Your task to perform on an android device: open app "LiveIn - Share Your Moment" Image 0: 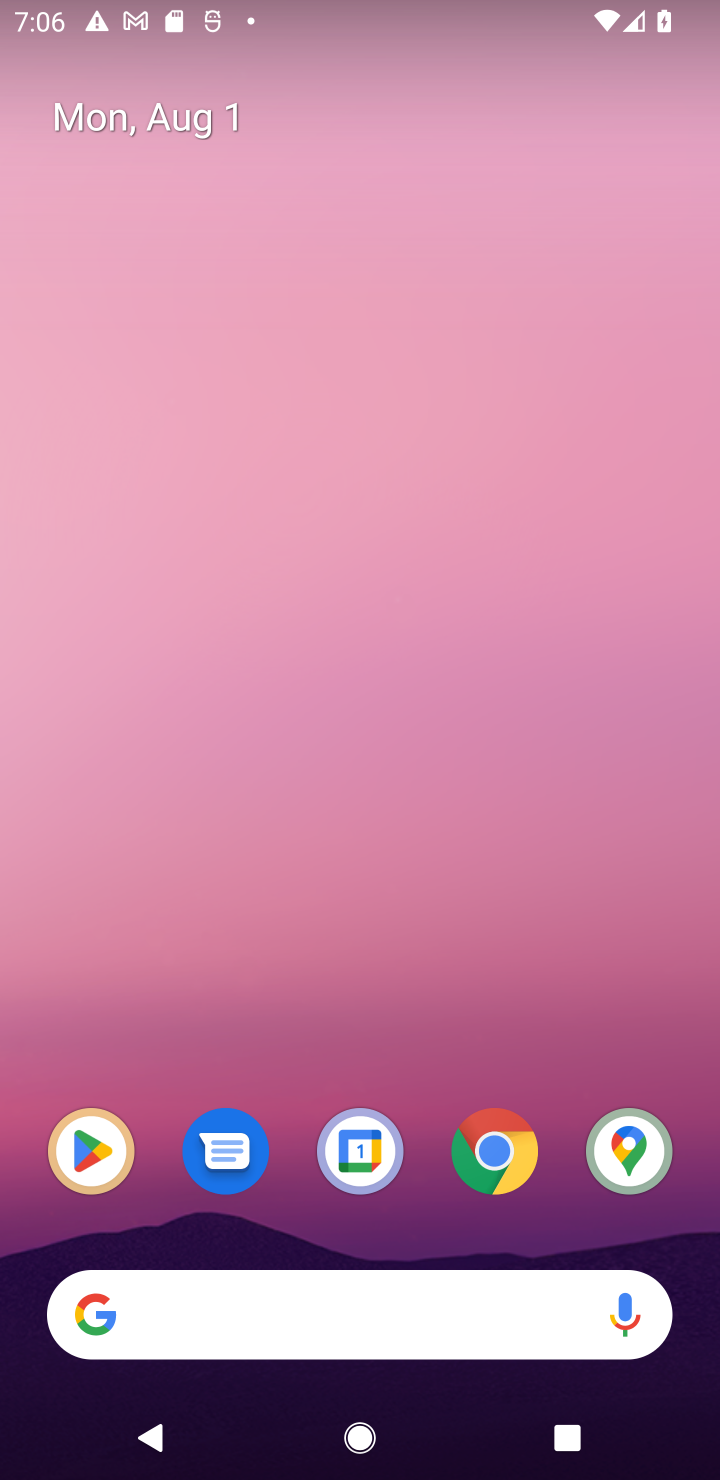
Step 0: drag from (452, 1293) to (197, 15)
Your task to perform on an android device: open app "LiveIn - Share Your Moment" Image 1: 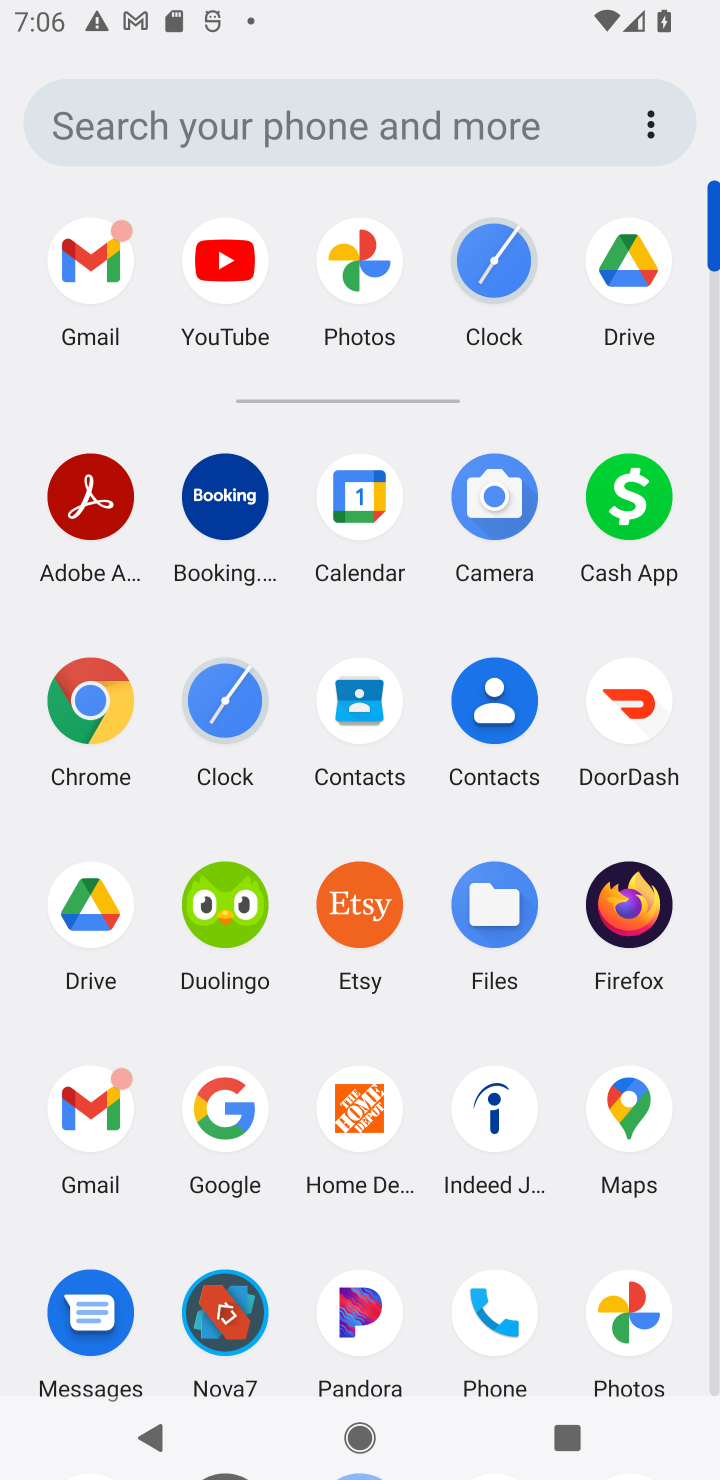
Step 1: drag from (409, 1216) to (352, 200)
Your task to perform on an android device: open app "LiveIn - Share Your Moment" Image 2: 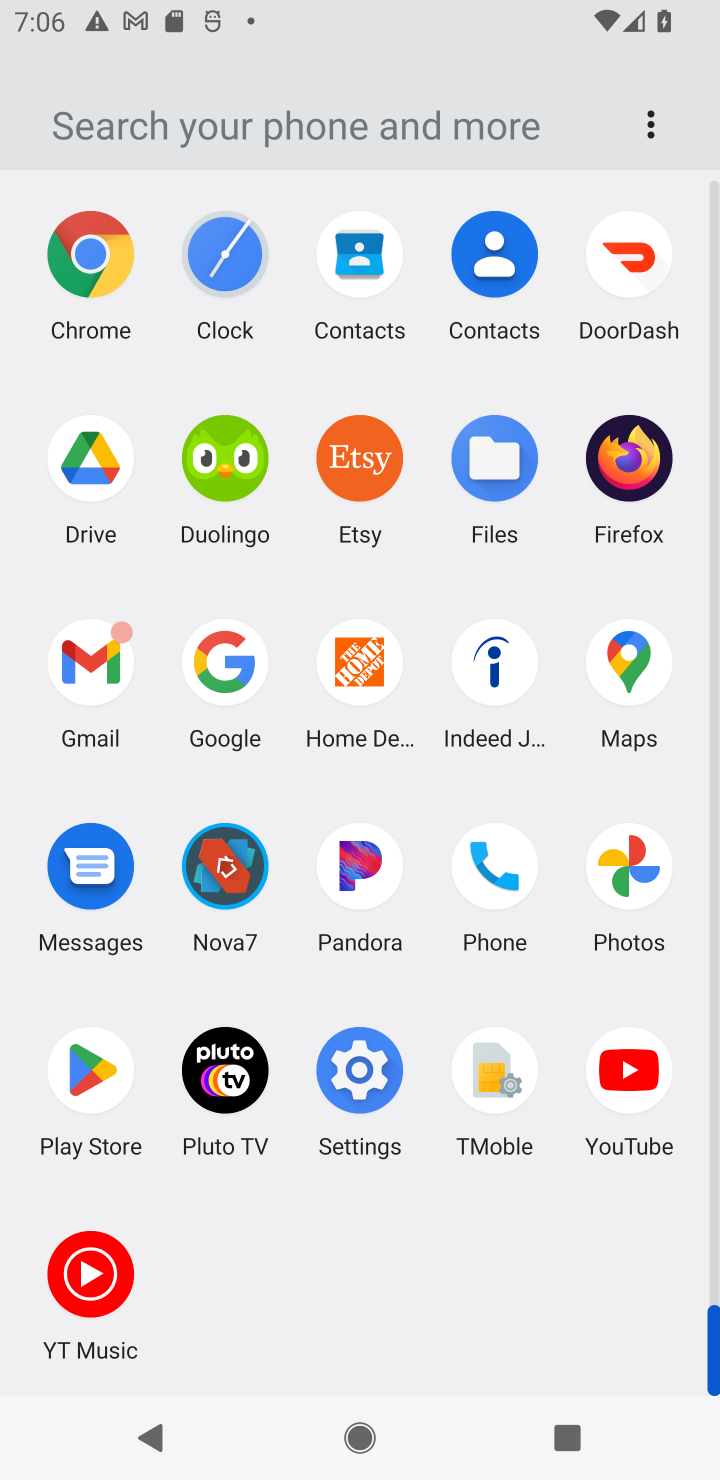
Step 2: click (78, 1062)
Your task to perform on an android device: open app "LiveIn - Share Your Moment" Image 3: 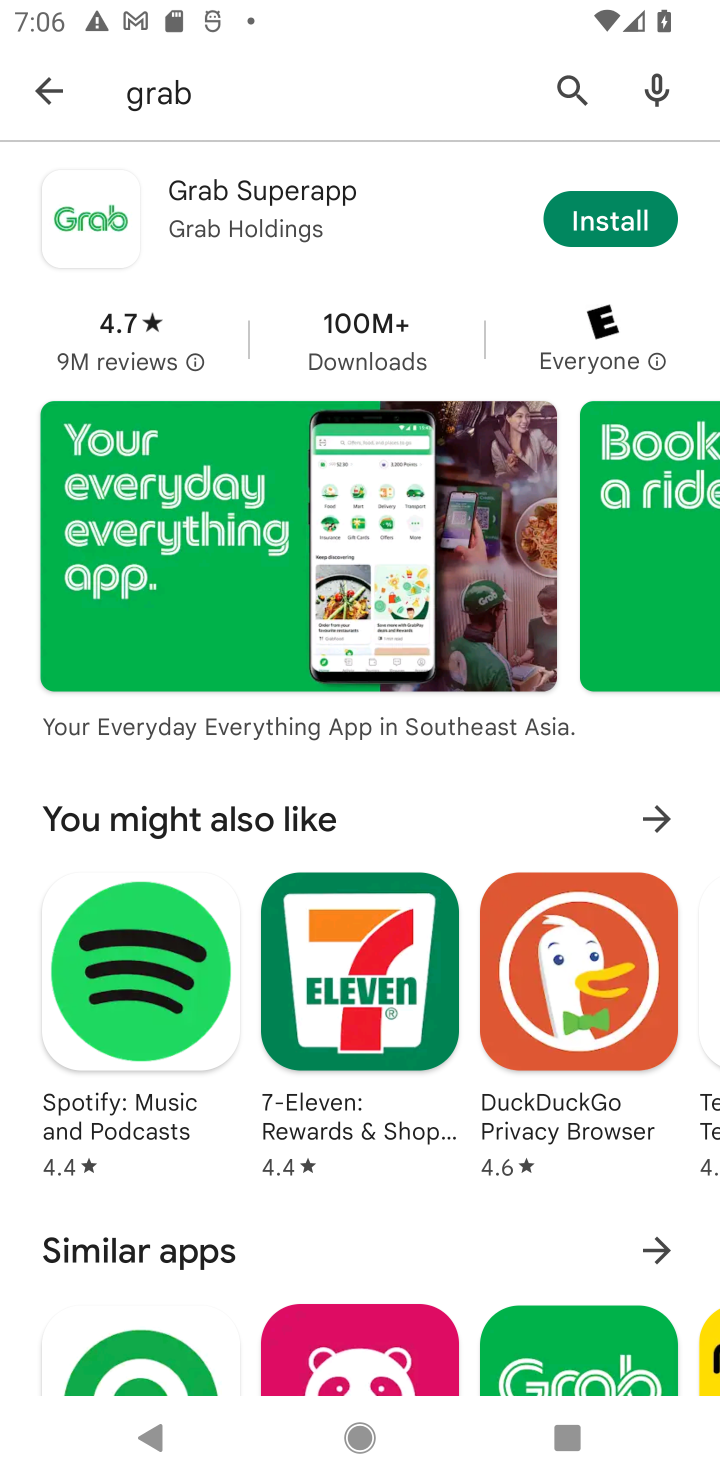
Step 3: click (566, 80)
Your task to perform on an android device: open app "LiveIn - Share Your Moment" Image 4: 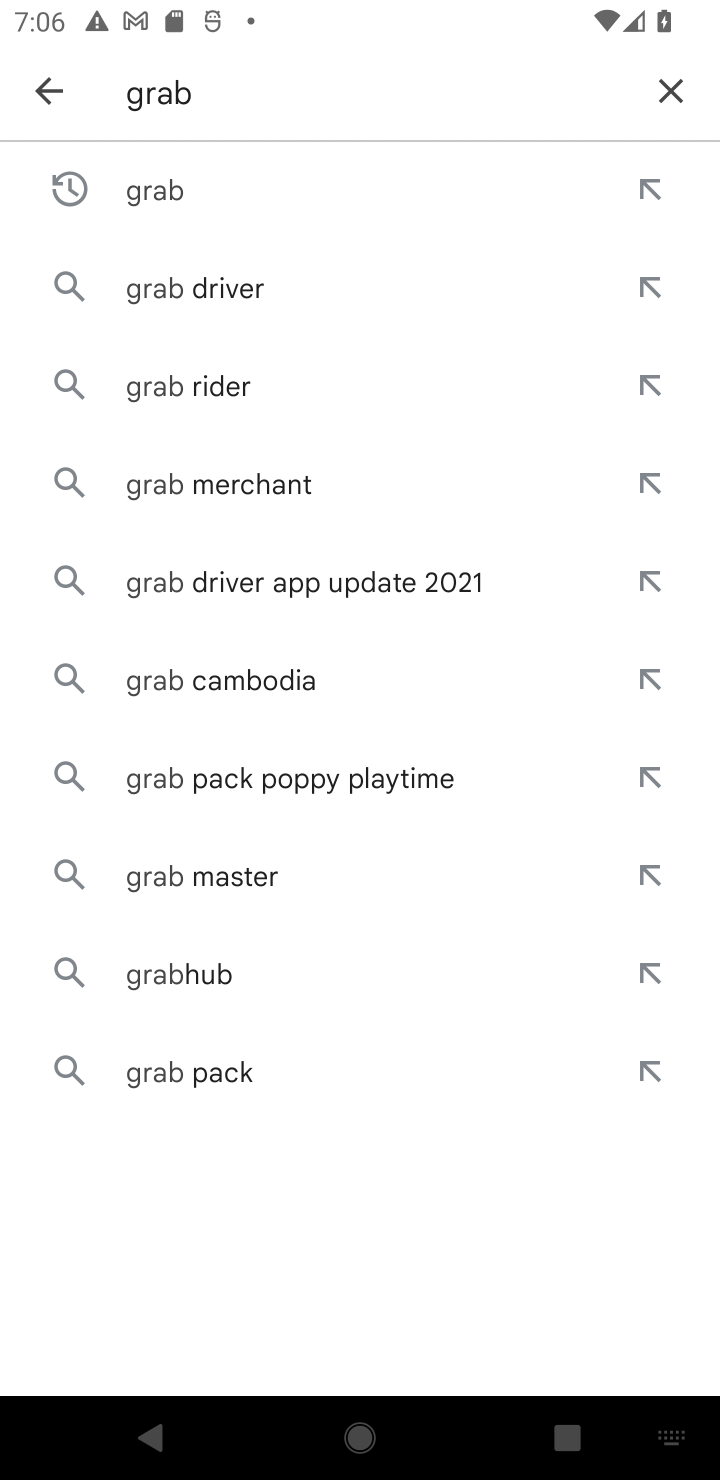
Step 4: click (680, 88)
Your task to perform on an android device: open app "LiveIn - Share Your Moment" Image 5: 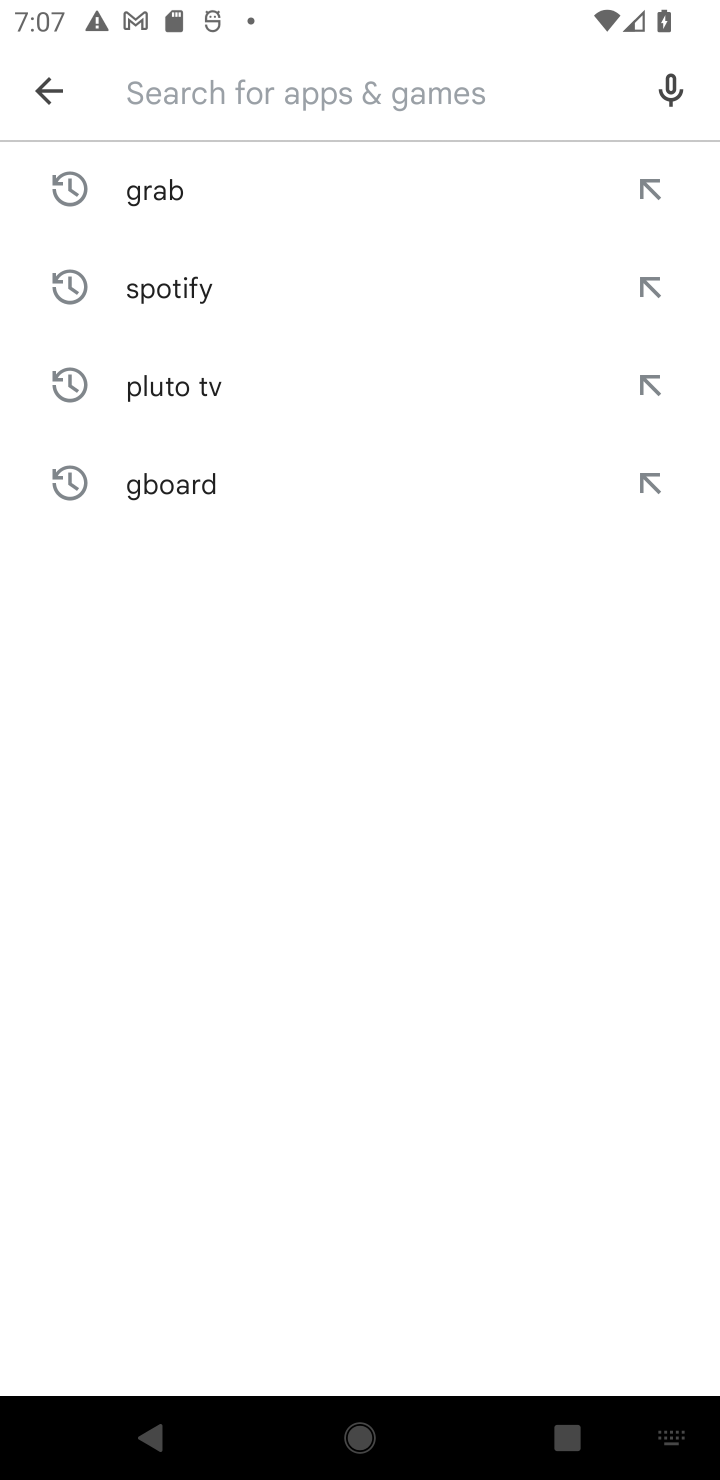
Step 5: type "livein - share your moment"
Your task to perform on an android device: open app "LiveIn - Share Your Moment" Image 6: 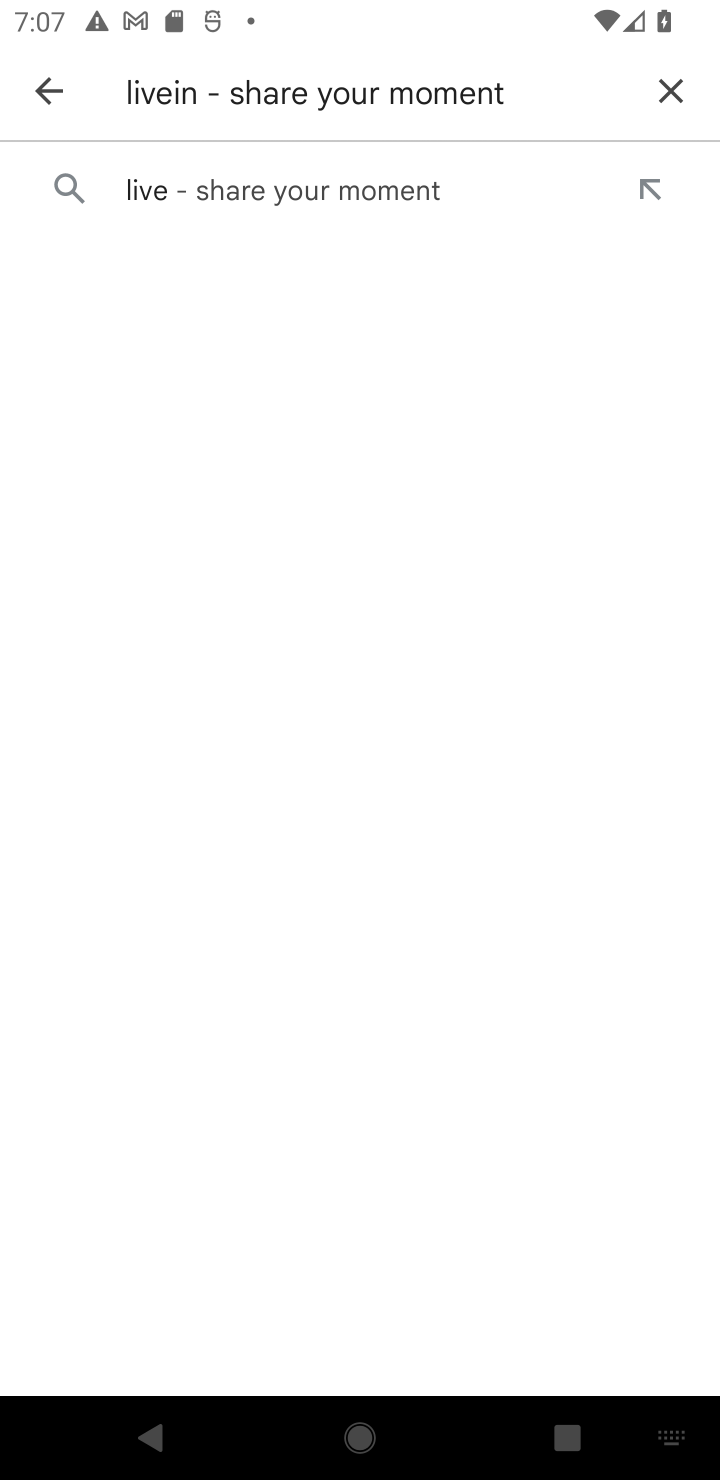
Step 6: click (420, 196)
Your task to perform on an android device: open app "LiveIn - Share Your Moment" Image 7: 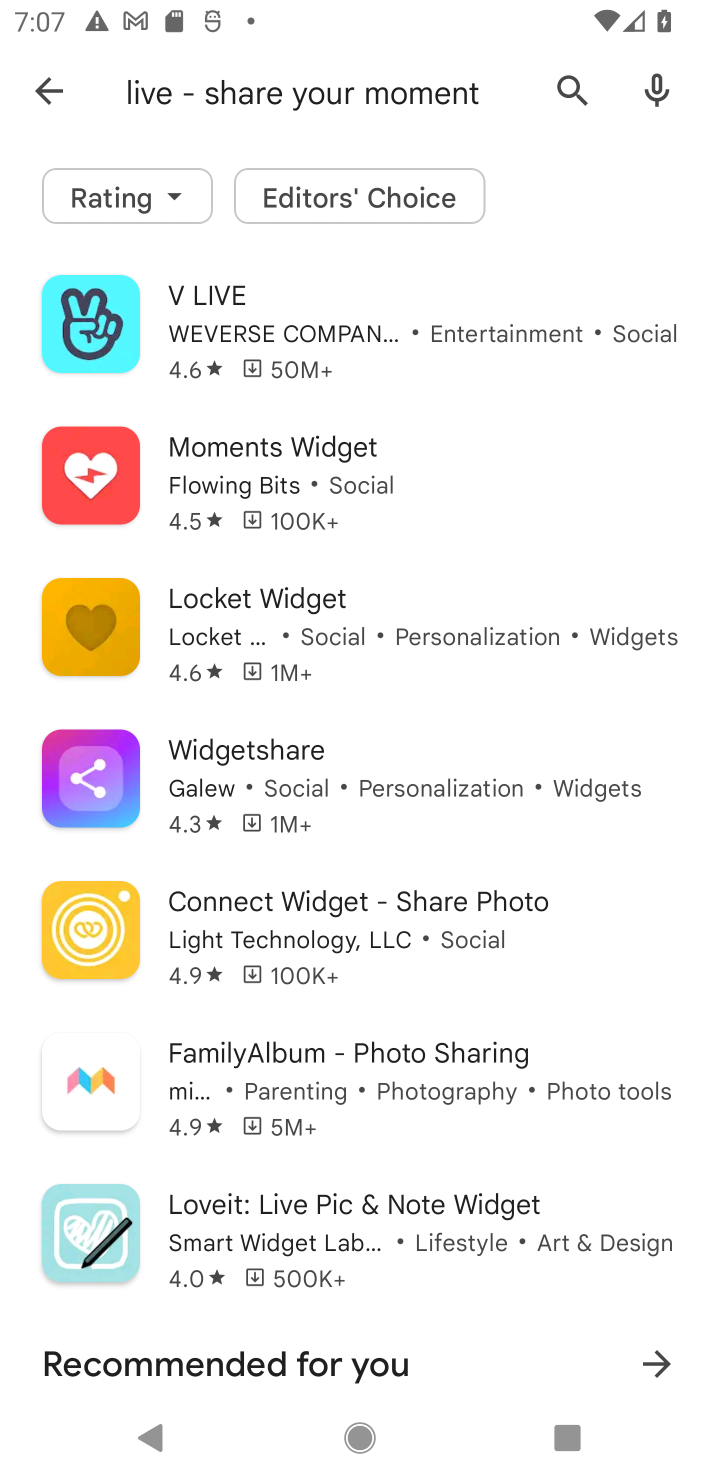
Step 7: task complete